Your task to perform on an android device: turn pop-ups off in chrome Image 0: 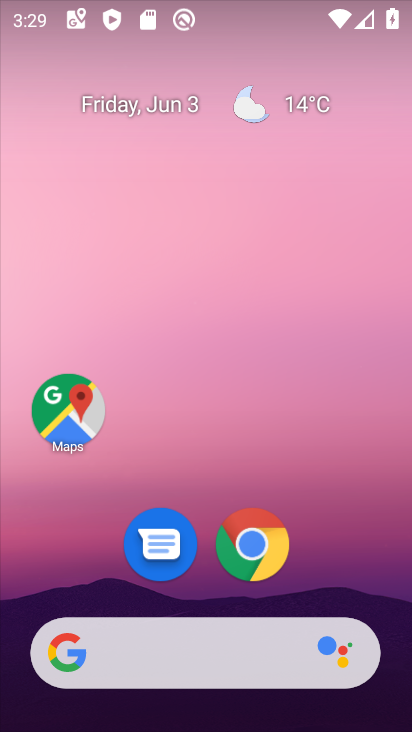
Step 0: click (246, 545)
Your task to perform on an android device: turn pop-ups off in chrome Image 1: 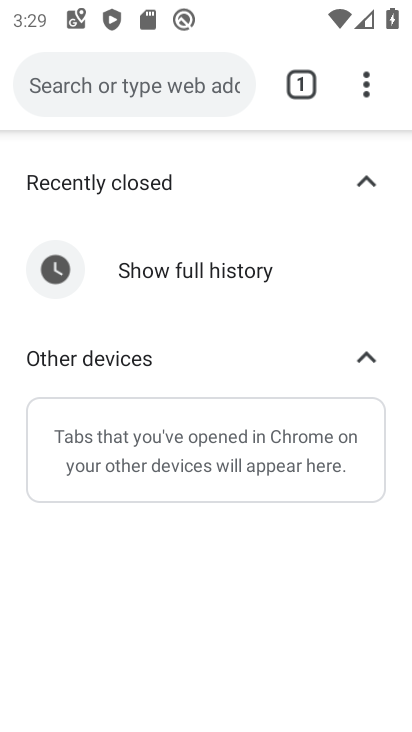
Step 1: click (359, 96)
Your task to perform on an android device: turn pop-ups off in chrome Image 2: 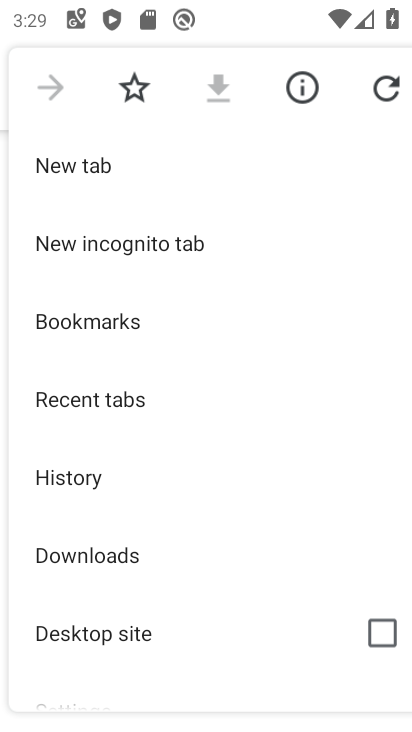
Step 2: drag from (204, 626) to (241, 214)
Your task to perform on an android device: turn pop-ups off in chrome Image 3: 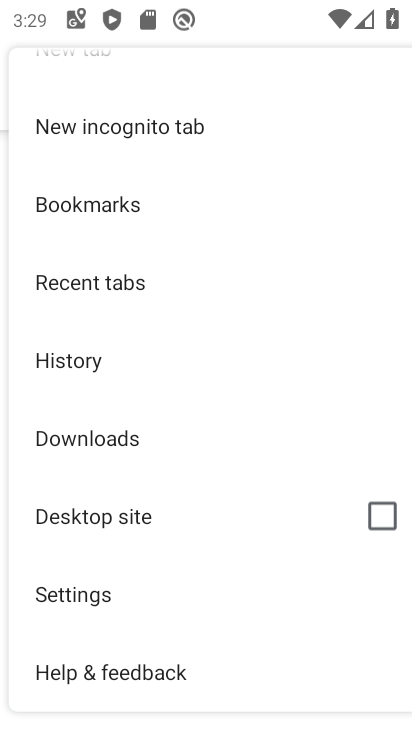
Step 3: click (97, 598)
Your task to perform on an android device: turn pop-ups off in chrome Image 4: 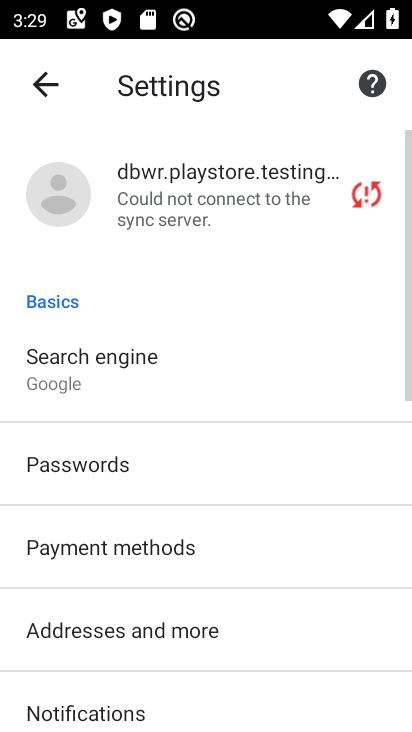
Step 4: drag from (234, 612) to (231, 143)
Your task to perform on an android device: turn pop-ups off in chrome Image 5: 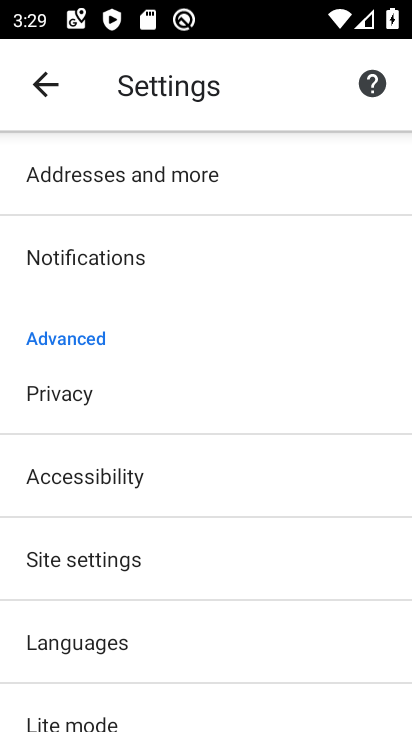
Step 5: click (94, 564)
Your task to perform on an android device: turn pop-ups off in chrome Image 6: 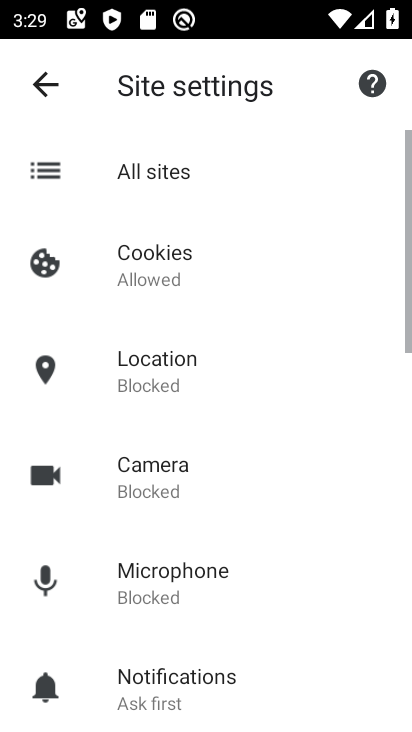
Step 6: drag from (253, 611) to (286, 198)
Your task to perform on an android device: turn pop-ups off in chrome Image 7: 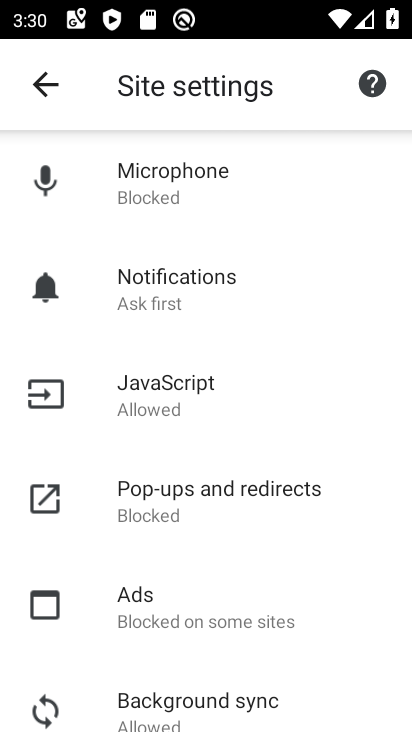
Step 7: click (154, 519)
Your task to perform on an android device: turn pop-ups off in chrome Image 8: 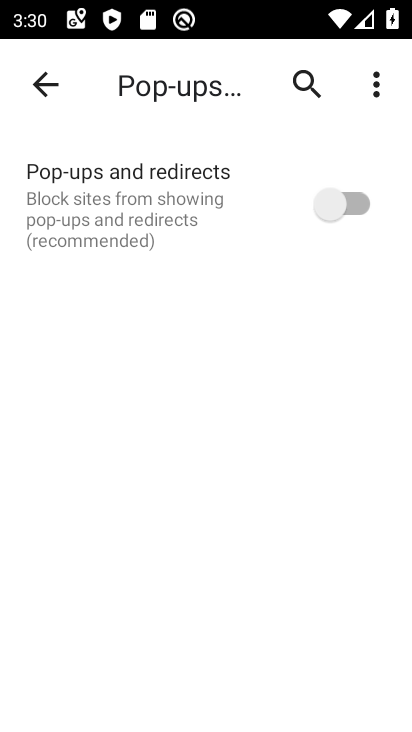
Step 8: task complete